Your task to perform on an android device: set default search engine in the chrome app Image 0: 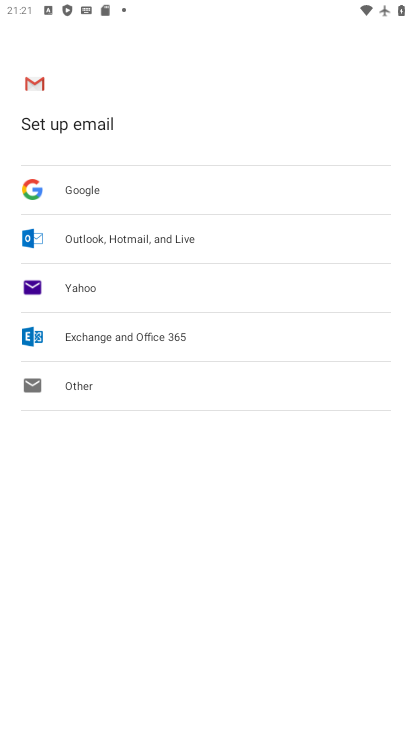
Step 0: press home button
Your task to perform on an android device: set default search engine in the chrome app Image 1: 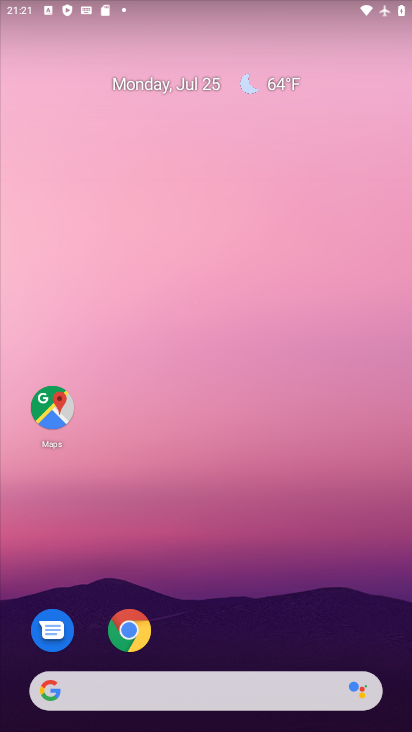
Step 1: click (127, 629)
Your task to perform on an android device: set default search engine in the chrome app Image 2: 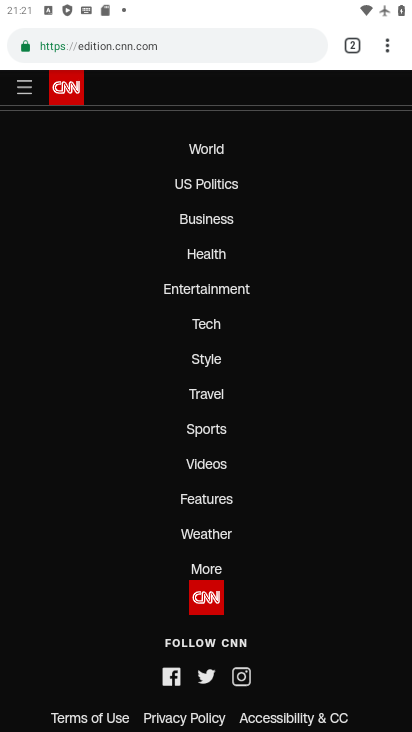
Step 2: click (388, 51)
Your task to perform on an android device: set default search engine in the chrome app Image 3: 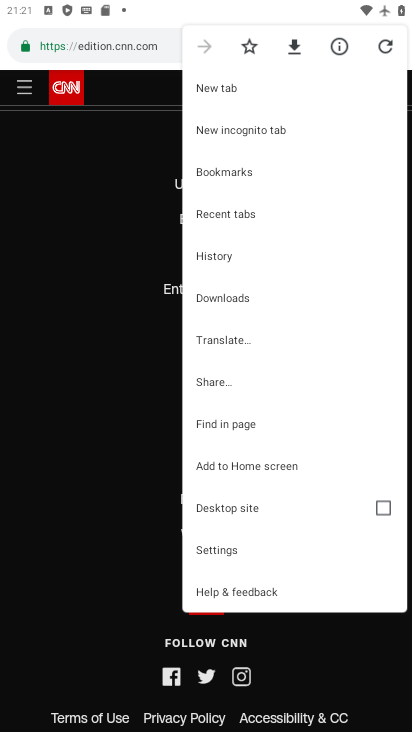
Step 3: click (220, 550)
Your task to perform on an android device: set default search engine in the chrome app Image 4: 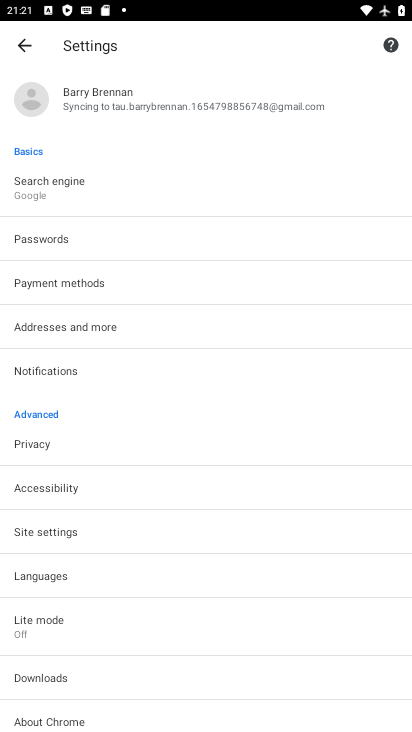
Step 4: click (41, 181)
Your task to perform on an android device: set default search engine in the chrome app Image 5: 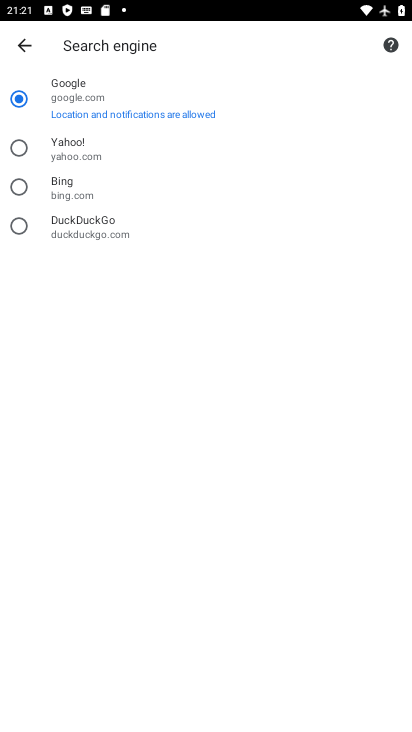
Step 5: click (15, 143)
Your task to perform on an android device: set default search engine in the chrome app Image 6: 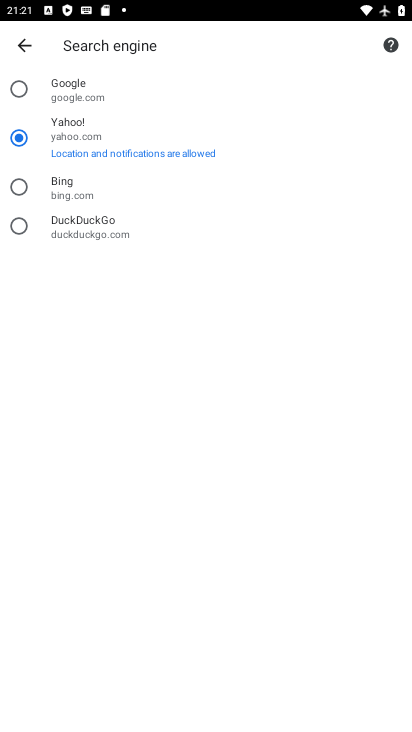
Step 6: task complete